Your task to perform on an android device: find which apps use the phone's location Image 0: 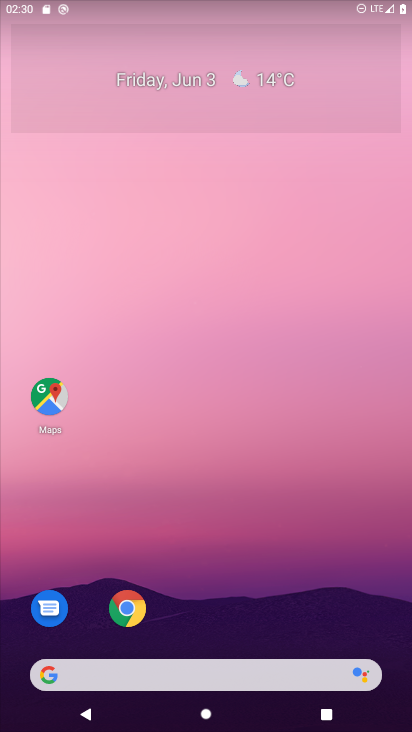
Step 0: drag from (206, 620) to (206, 157)
Your task to perform on an android device: find which apps use the phone's location Image 1: 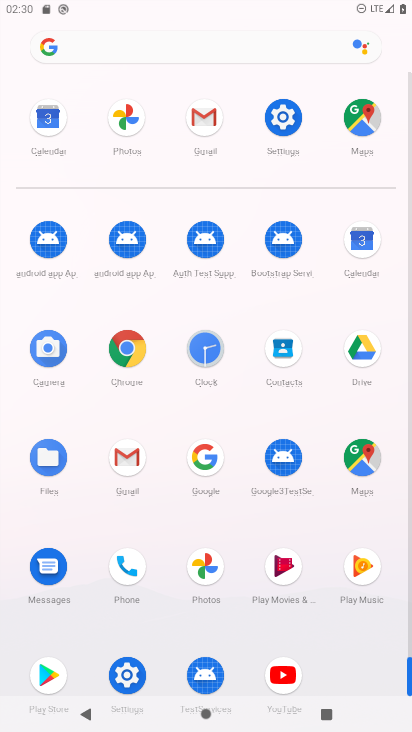
Step 1: click (283, 116)
Your task to perform on an android device: find which apps use the phone's location Image 2: 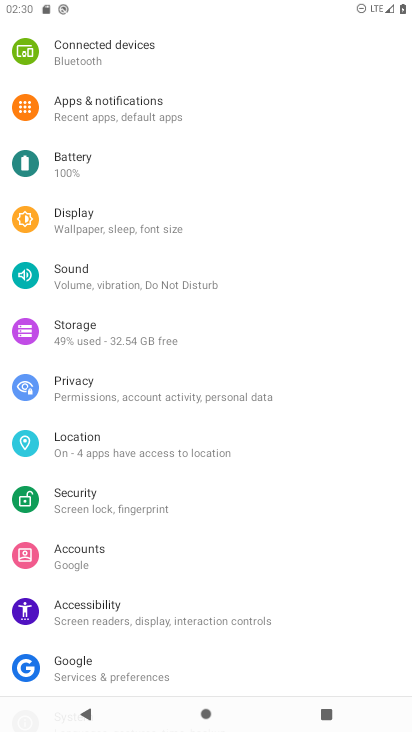
Step 2: click (172, 395)
Your task to perform on an android device: find which apps use the phone's location Image 3: 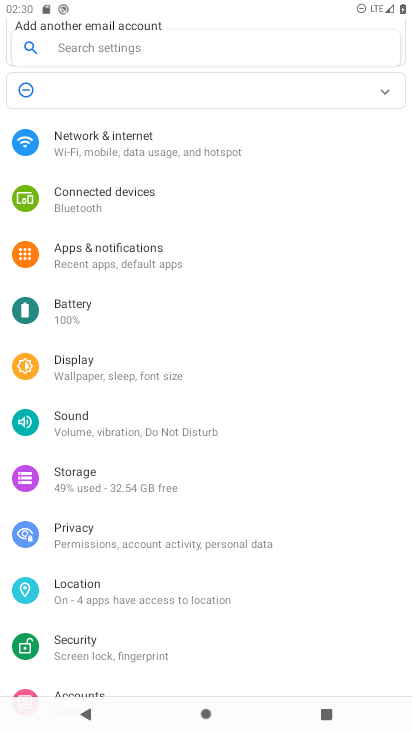
Step 3: click (95, 579)
Your task to perform on an android device: find which apps use the phone's location Image 4: 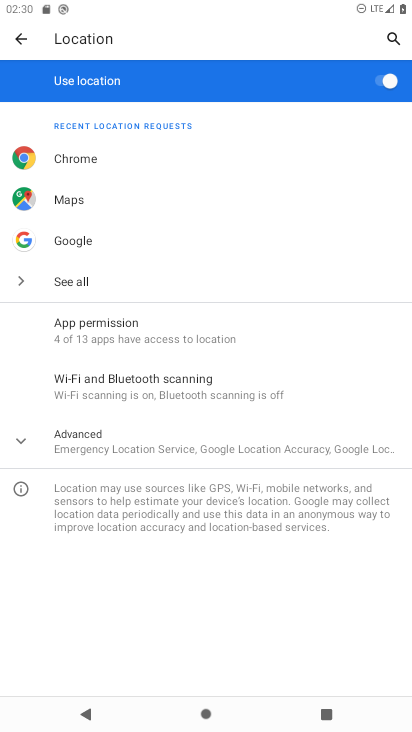
Step 4: click (128, 341)
Your task to perform on an android device: find which apps use the phone's location Image 5: 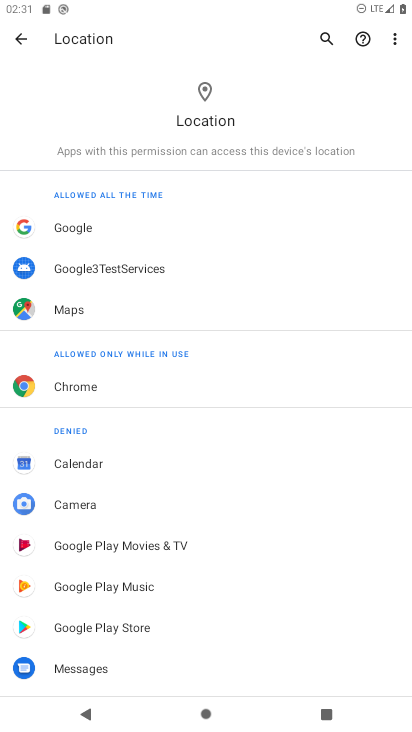
Step 5: task complete